Your task to perform on an android device: turn on javascript in the chrome app Image 0: 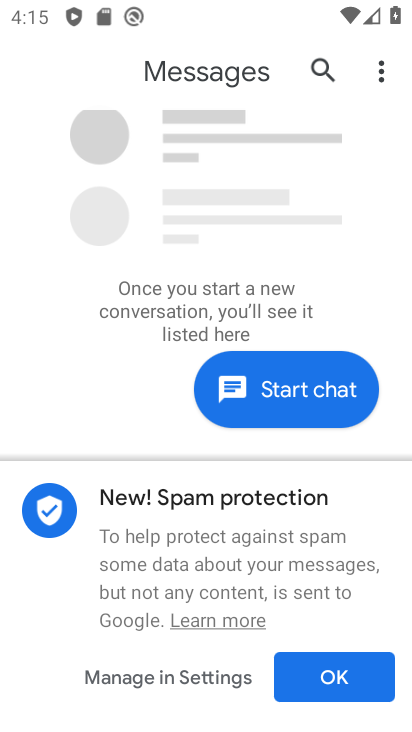
Step 0: press home button
Your task to perform on an android device: turn on javascript in the chrome app Image 1: 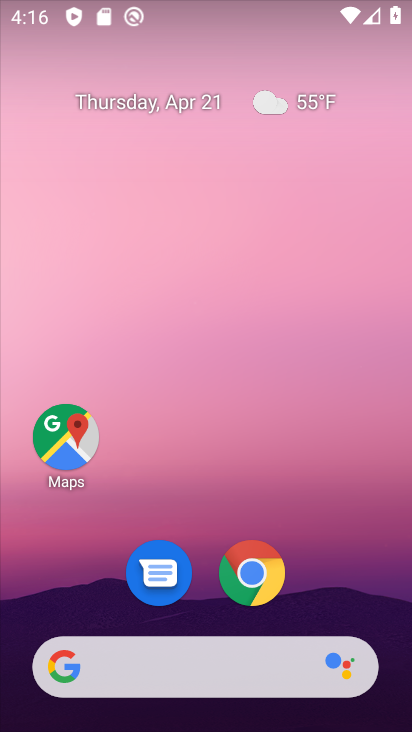
Step 1: click (254, 573)
Your task to perform on an android device: turn on javascript in the chrome app Image 2: 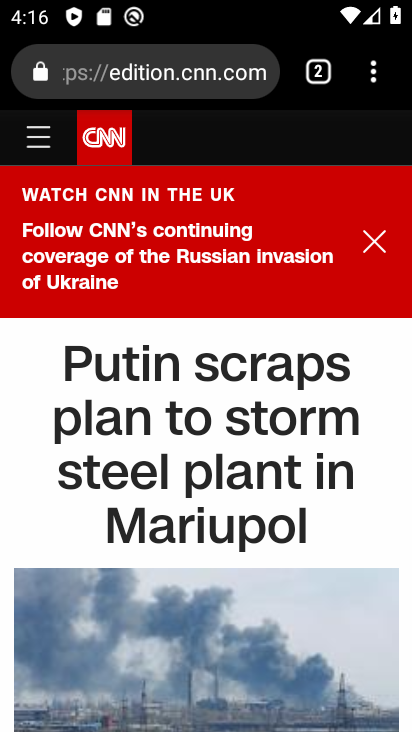
Step 2: click (372, 75)
Your task to perform on an android device: turn on javascript in the chrome app Image 3: 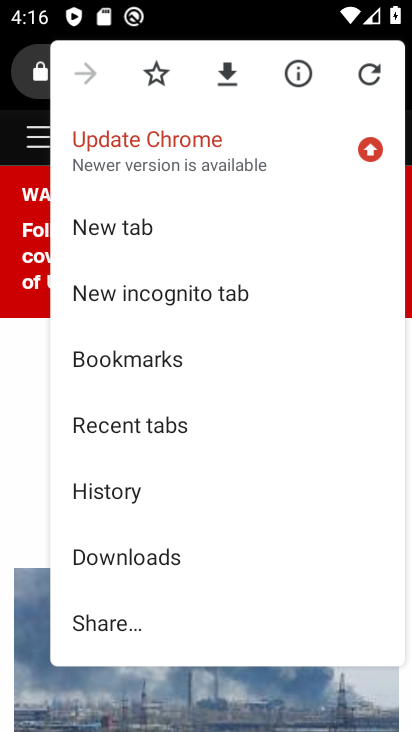
Step 3: drag from (270, 550) to (276, 275)
Your task to perform on an android device: turn on javascript in the chrome app Image 4: 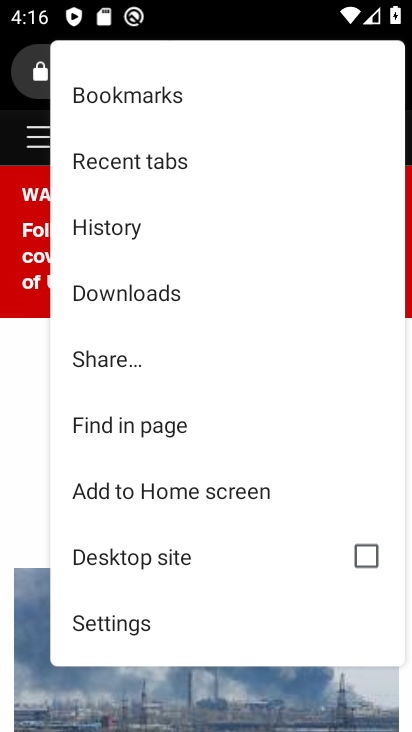
Step 4: drag from (309, 497) to (269, 252)
Your task to perform on an android device: turn on javascript in the chrome app Image 5: 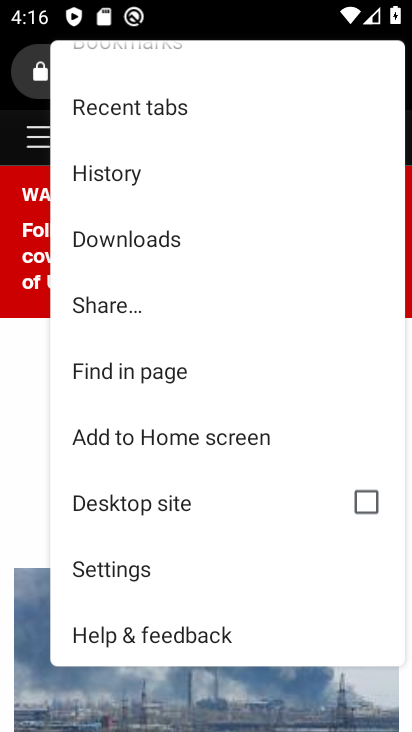
Step 5: click (115, 570)
Your task to perform on an android device: turn on javascript in the chrome app Image 6: 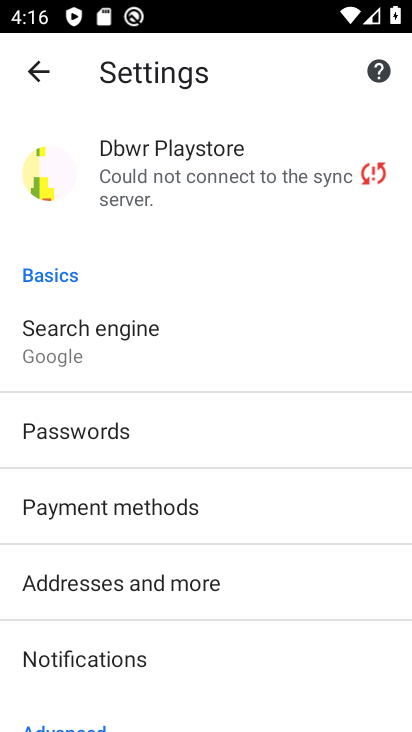
Step 6: drag from (266, 632) to (258, 370)
Your task to perform on an android device: turn on javascript in the chrome app Image 7: 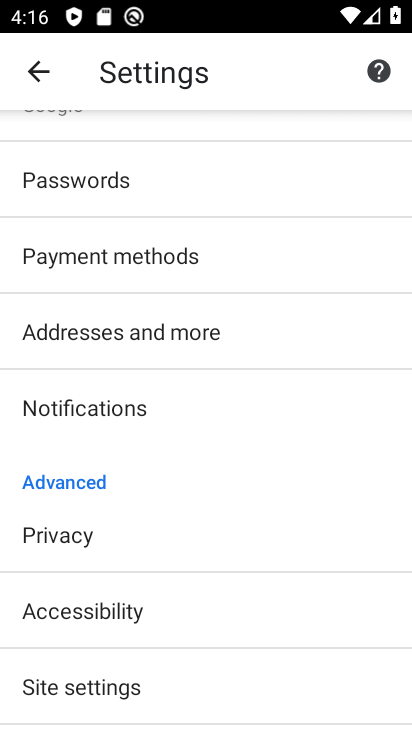
Step 7: drag from (240, 611) to (273, 309)
Your task to perform on an android device: turn on javascript in the chrome app Image 8: 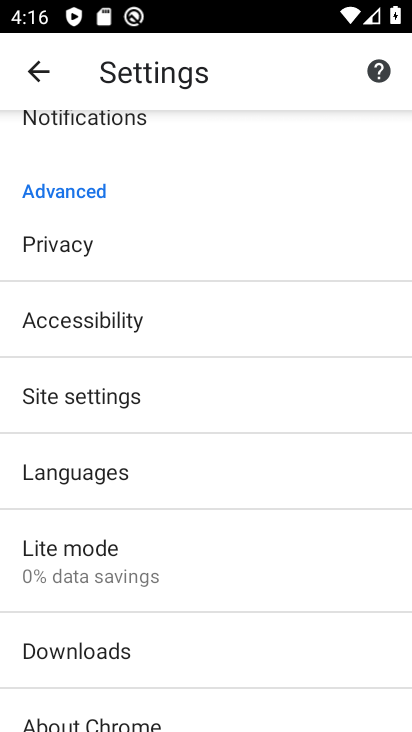
Step 8: click (72, 394)
Your task to perform on an android device: turn on javascript in the chrome app Image 9: 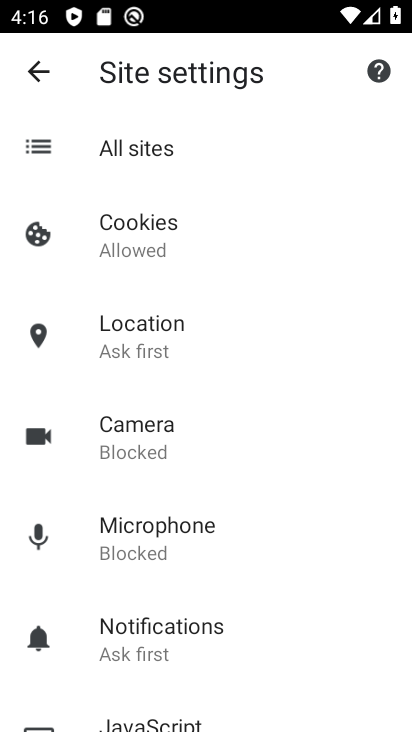
Step 9: drag from (267, 579) to (253, 335)
Your task to perform on an android device: turn on javascript in the chrome app Image 10: 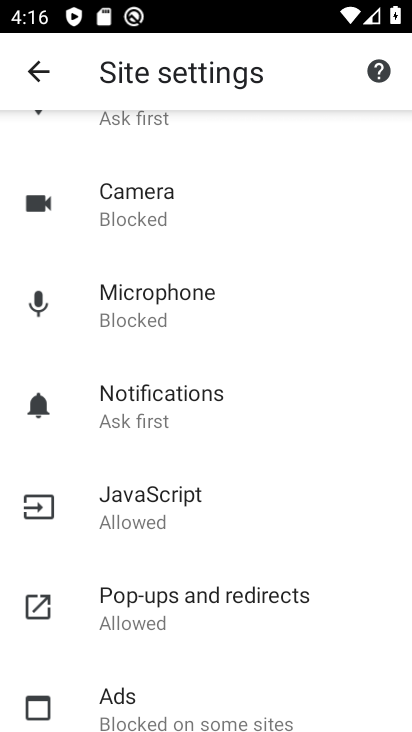
Step 10: click (144, 499)
Your task to perform on an android device: turn on javascript in the chrome app Image 11: 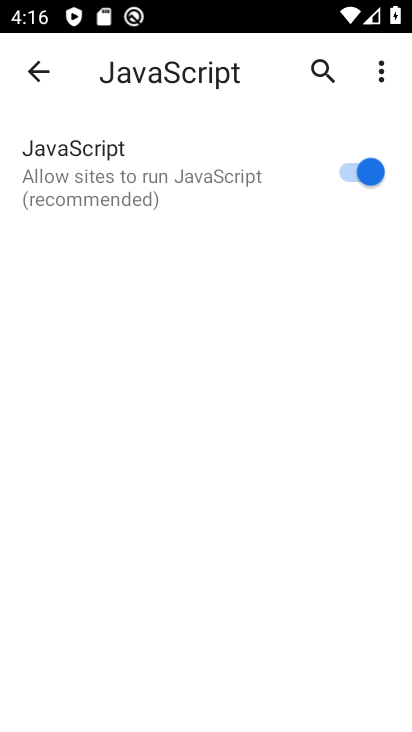
Step 11: task complete